Your task to perform on an android device: turn off priority inbox in the gmail app Image 0: 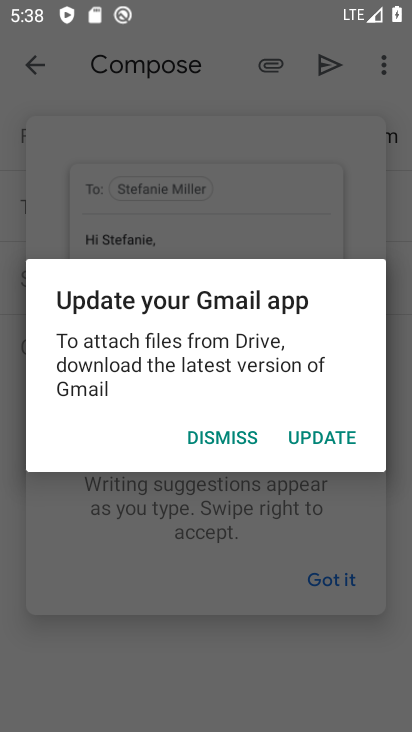
Step 0: press home button
Your task to perform on an android device: turn off priority inbox in the gmail app Image 1: 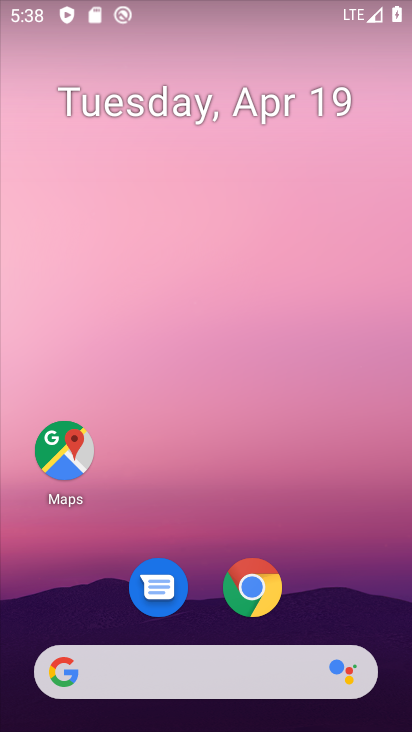
Step 1: drag from (220, 627) to (240, 162)
Your task to perform on an android device: turn off priority inbox in the gmail app Image 2: 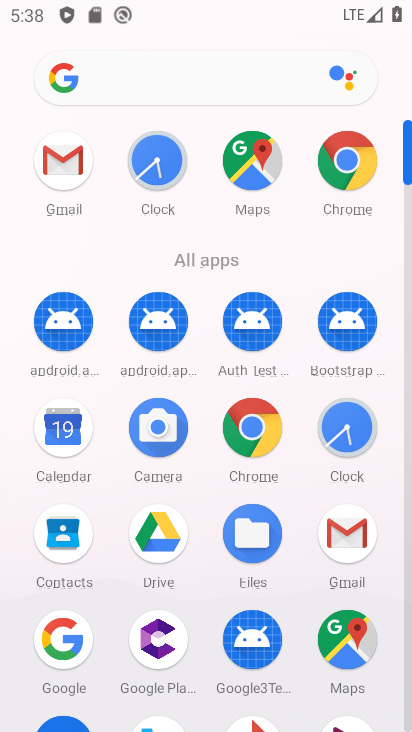
Step 2: click (60, 172)
Your task to perform on an android device: turn off priority inbox in the gmail app Image 3: 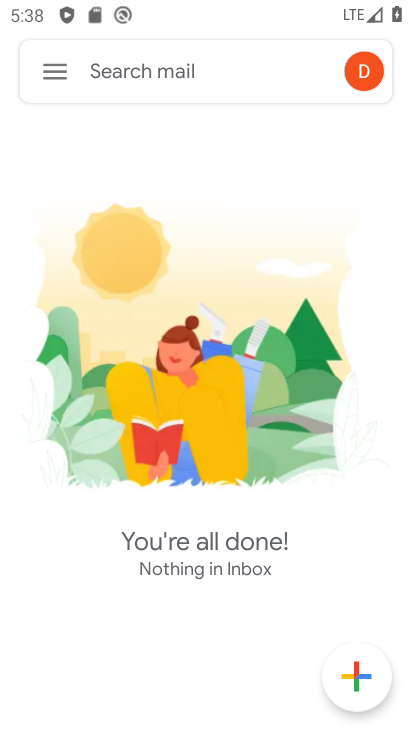
Step 3: click (66, 76)
Your task to perform on an android device: turn off priority inbox in the gmail app Image 4: 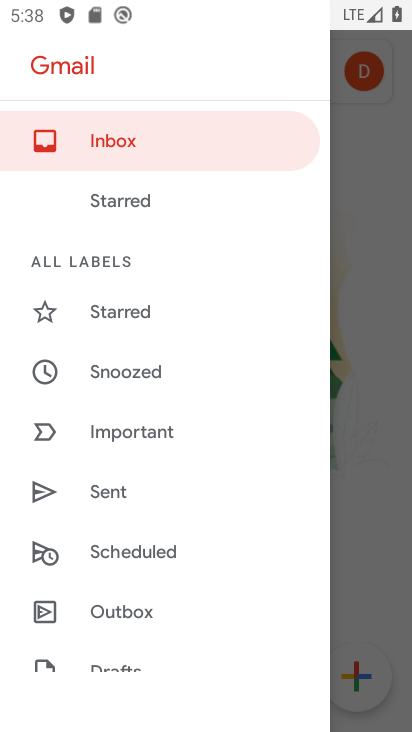
Step 4: click (98, 408)
Your task to perform on an android device: turn off priority inbox in the gmail app Image 5: 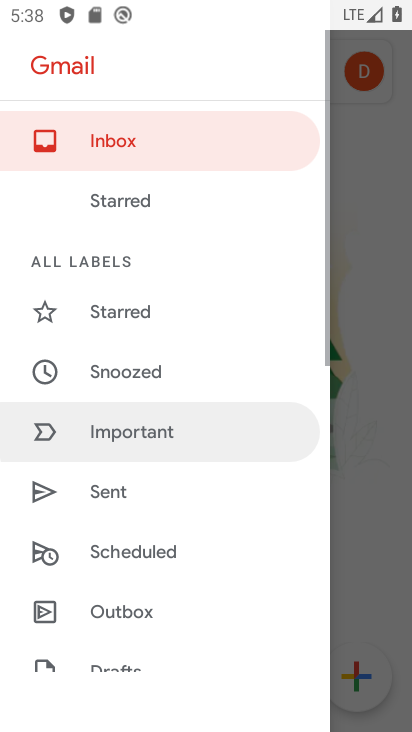
Step 5: click (98, 408)
Your task to perform on an android device: turn off priority inbox in the gmail app Image 6: 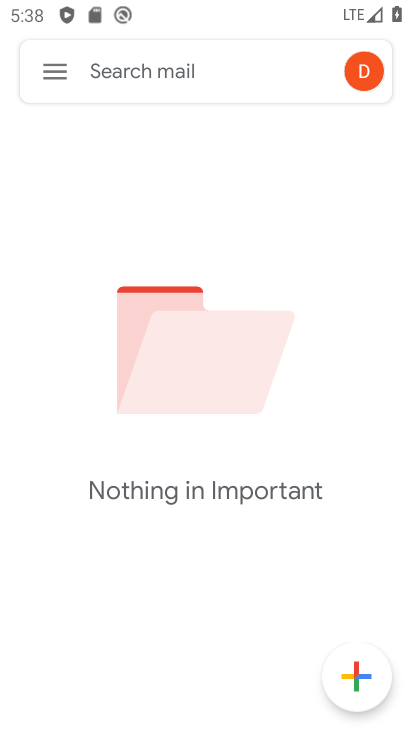
Step 6: click (61, 70)
Your task to perform on an android device: turn off priority inbox in the gmail app Image 7: 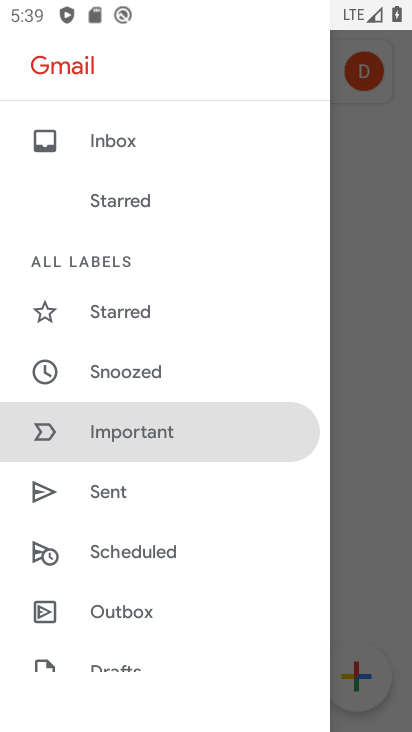
Step 7: drag from (151, 648) to (147, 139)
Your task to perform on an android device: turn off priority inbox in the gmail app Image 8: 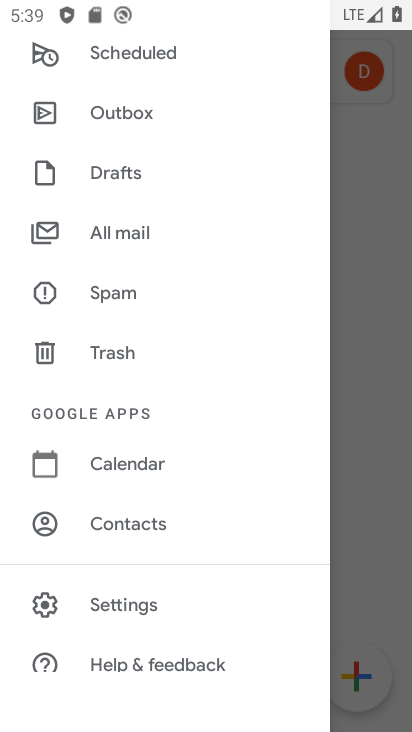
Step 8: click (133, 605)
Your task to perform on an android device: turn off priority inbox in the gmail app Image 9: 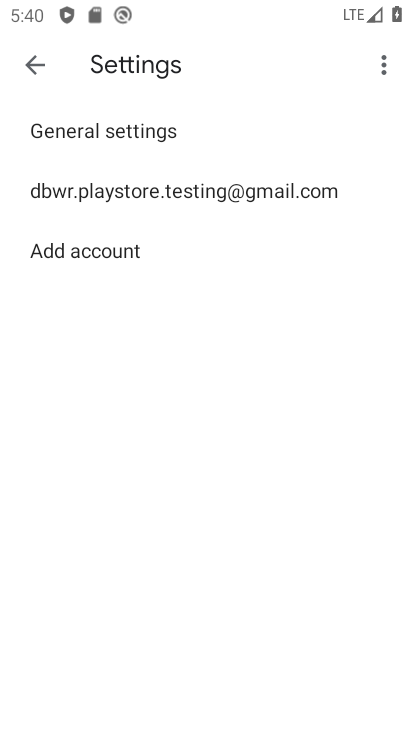
Step 9: click (120, 179)
Your task to perform on an android device: turn off priority inbox in the gmail app Image 10: 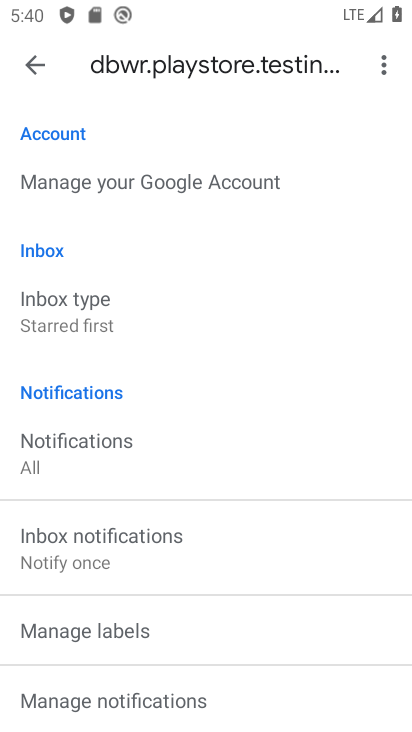
Step 10: click (96, 323)
Your task to perform on an android device: turn off priority inbox in the gmail app Image 11: 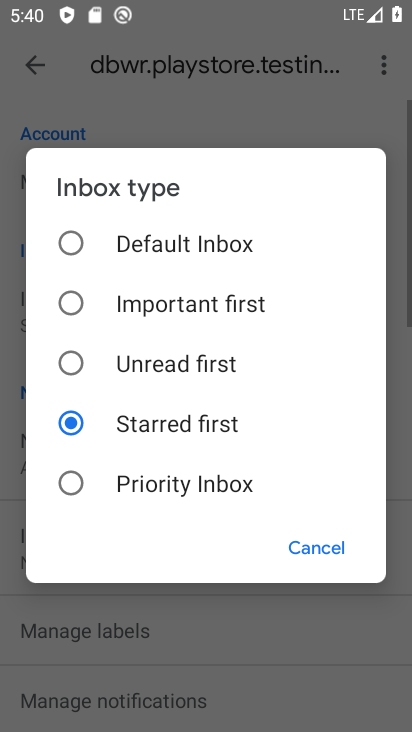
Step 11: task complete